Your task to perform on an android device: show emergency info Image 0: 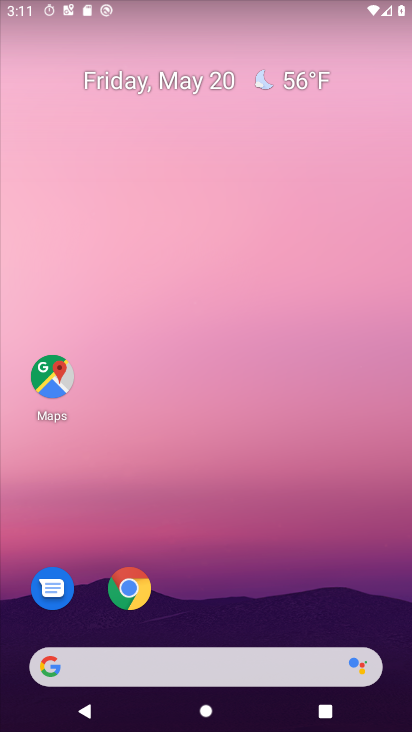
Step 0: drag from (76, 536) to (331, 150)
Your task to perform on an android device: show emergency info Image 1: 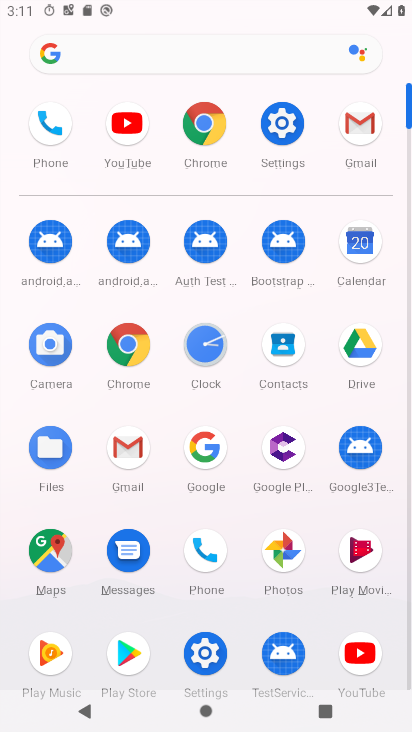
Step 1: click (267, 128)
Your task to perform on an android device: show emergency info Image 2: 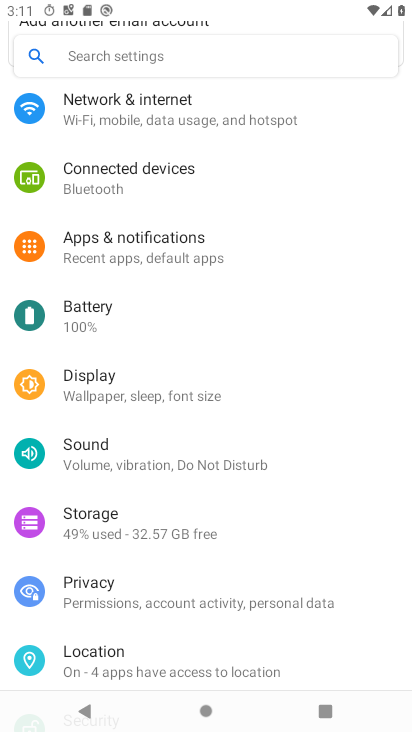
Step 2: drag from (51, 543) to (267, 137)
Your task to perform on an android device: show emergency info Image 3: 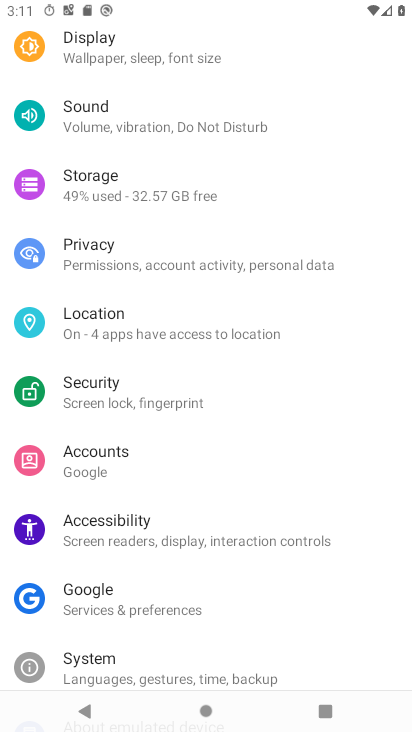
Step 3: drag from (47, 590) to (210, 263)
Your task to perform on an android device: show emergency info Image 4: 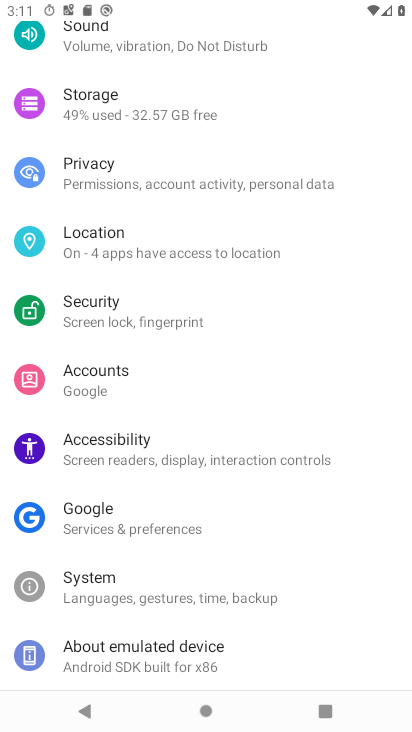
Step 4: click (118, 663)
Your task to perform on an android device: show emergency info Image 5: 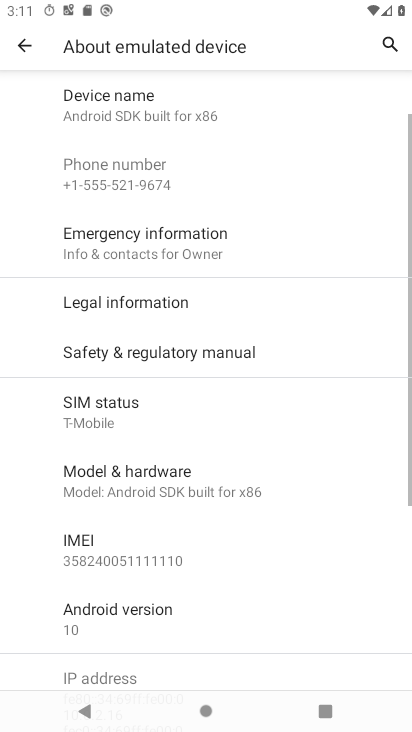
Step 5: click (130, 250)
Your task to perform on an android device: show emergency info Image 6: 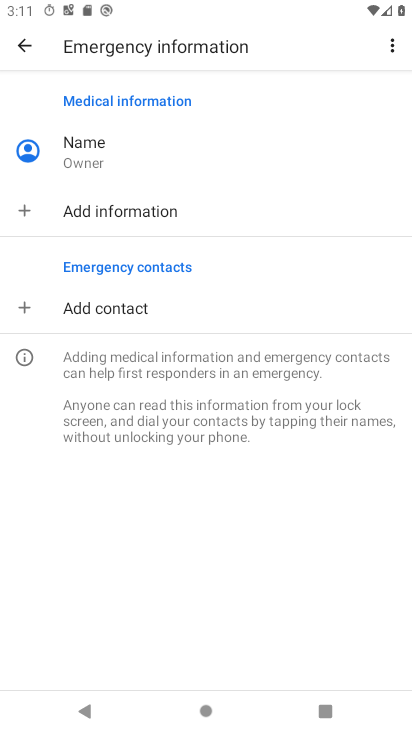
Step 6: task complete